Your task to perform on an android device: Do I have any events this weekend? Image 0: 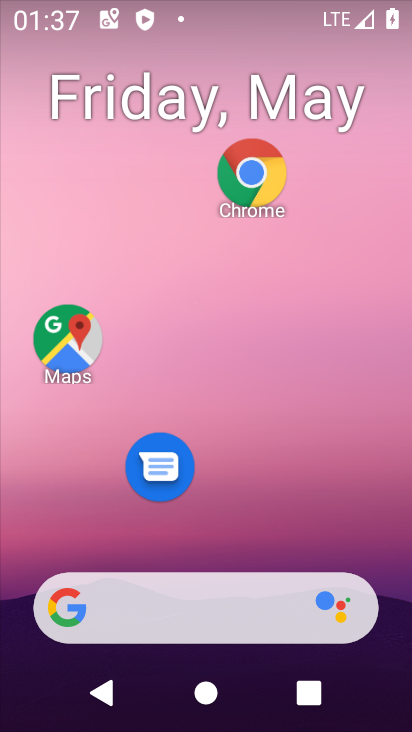
Step 0: drag from (215, 643) to (140, 180)
Your task to perform on an android device: Do I have any events this weekend? Image 1: 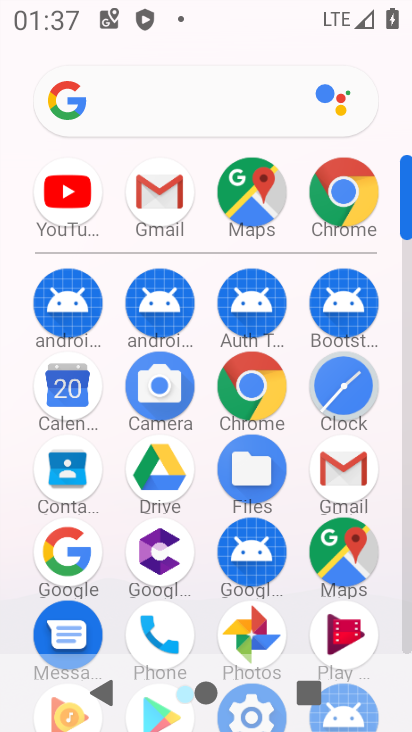
Step 1: click (85, 397)
Your task to perform on an android device: Do I have any events this weekend? Image 2: 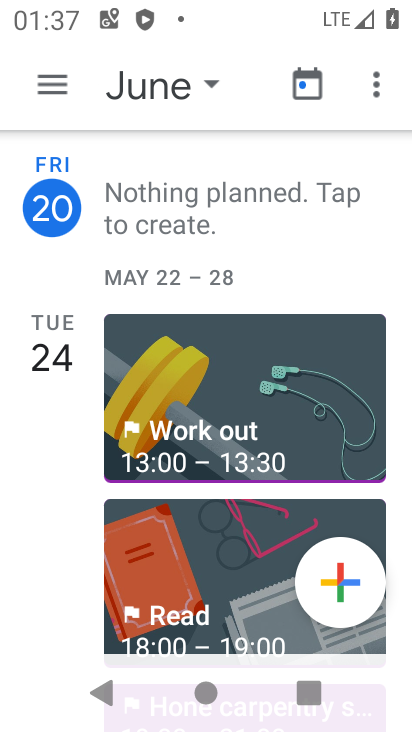
Step 2: click (77, 98)
Your task to perform on an android device: Do I have any events this weekend? Image 3: 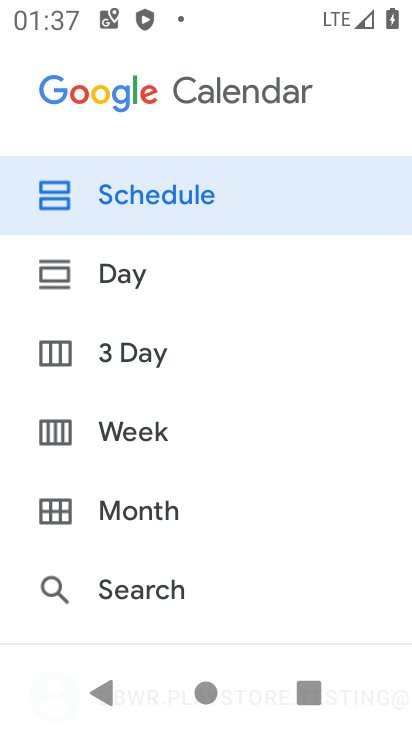
Step 3: click (170, 518)
Your task to perform on an android device: Do I have any events this weekend? Image 4: 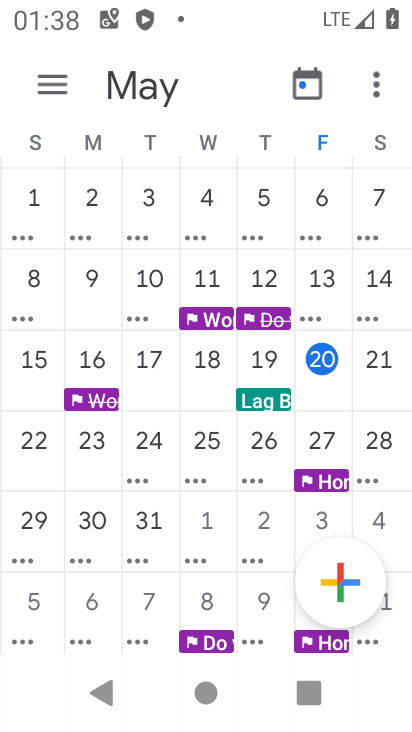
Step 4: click (41, 73)
Your task to perform on an android device: Do I have any events this weekend? Image 5: 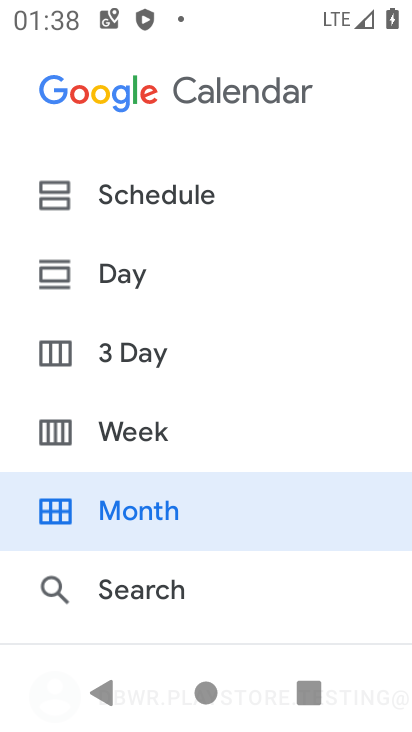
Step 5: click (140, 213)
Your task to perform on an android device: Do I have any events this weekend? Image 6: 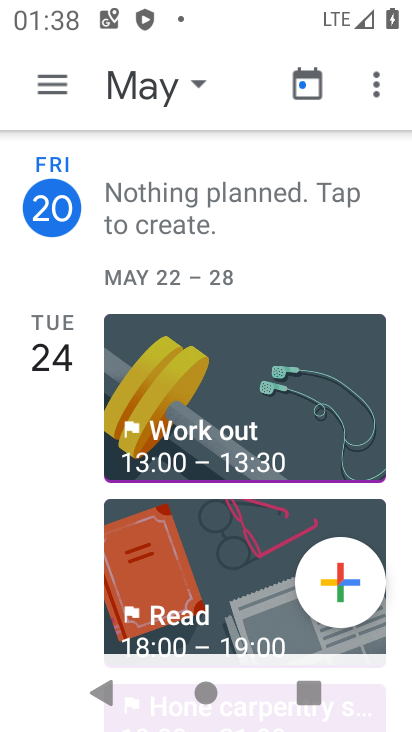
Step 6: task complete